Your task to perform on an android device: delete location history Image 0: 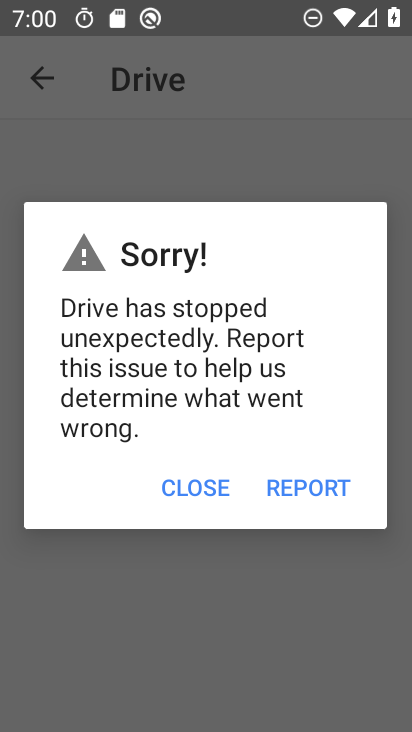
Step 0: press home button
Your task to perform on an android device: delete location history Image 1: 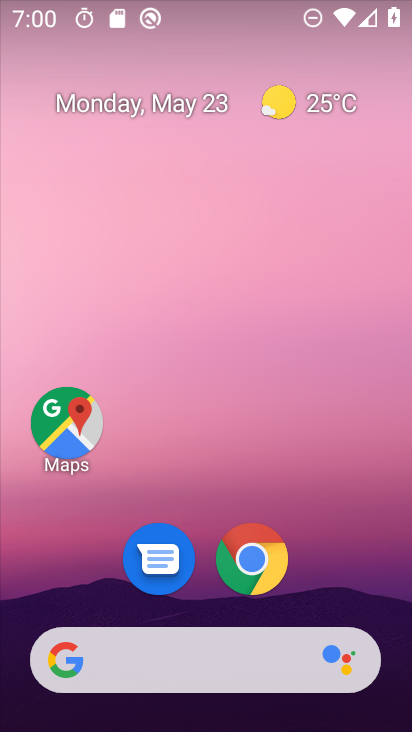
Step 1: drag from (398, 623) to (246, 79)
Your task to perform on an android device: delete location history Image 2: 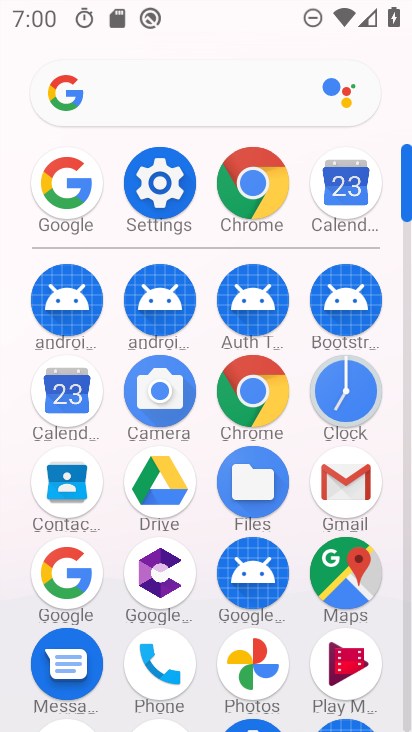
Step 2: click (144, 209)
Your task to perform on an android device: delete location history Image 3: 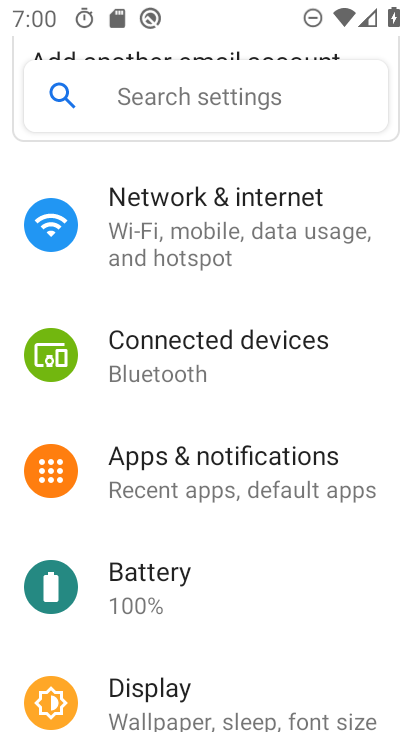
Step 3: drag from (96, 707) to (207, 281)
Your task to perform on an android device: delete location history Image 4: 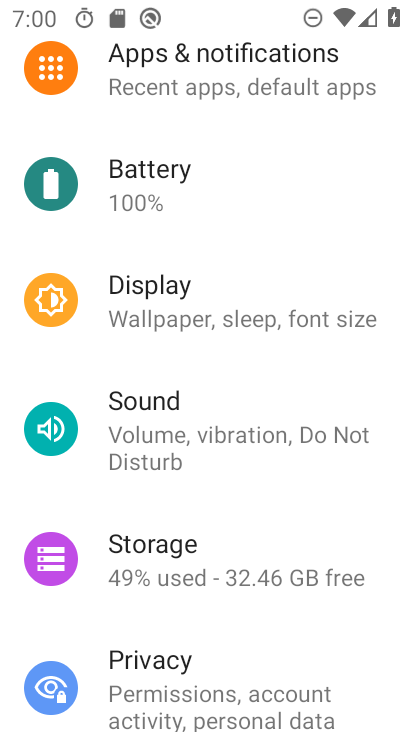
Step 4: drag from (143, 542) to (190, 212)
Your task to perform on an android device: delete location history Image 5: 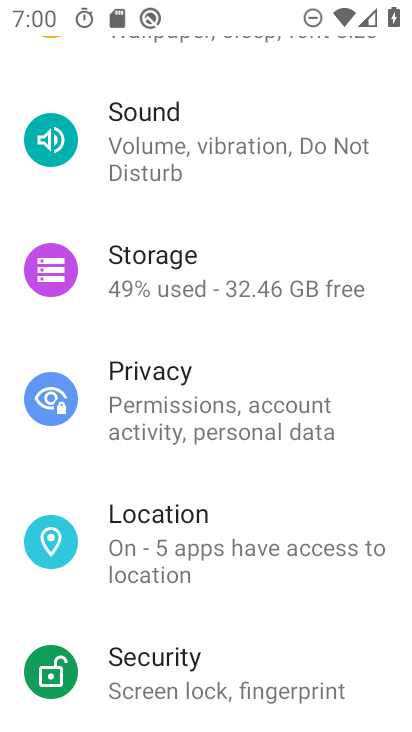
Step 5: click (199, 517)
Your task to perform on an android device: delete location history Image 6: 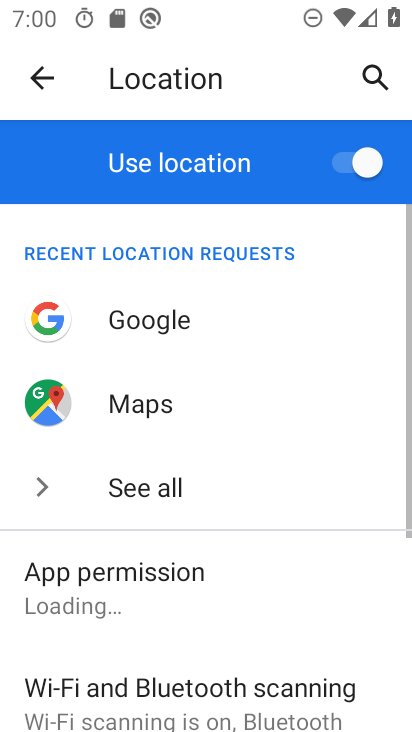
Step 6: drag from (170, 613) to (212, 301)
Your task to perform on an android device: delete location history Image 7: 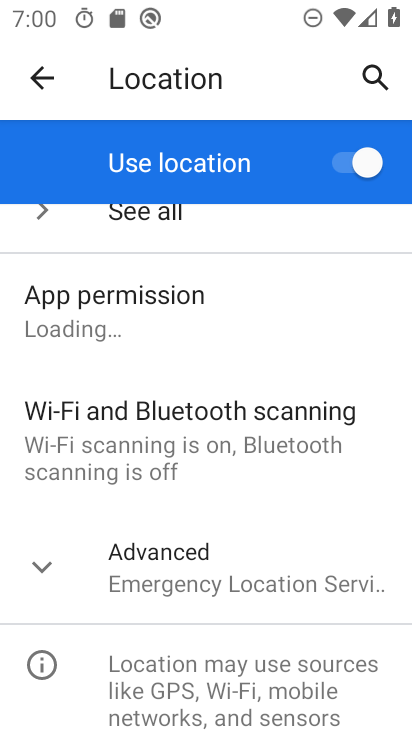
Step 7: click (271, 556)
Your task to perform on an android device: delete location history Image 8: 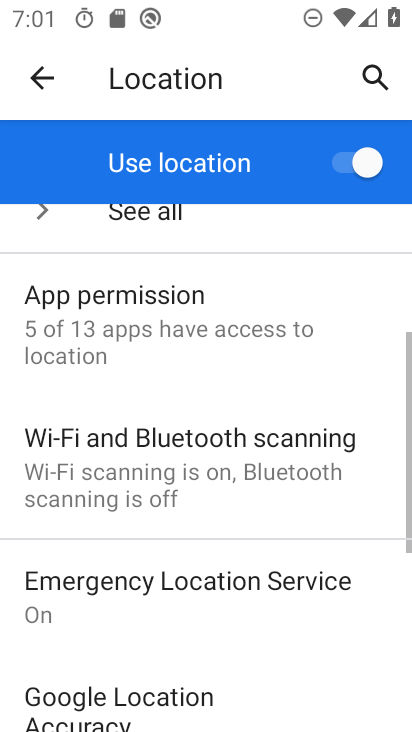
Step 8: drag from (158, 683) to (223, 379)
Your task to perform on an android device: delete location history Image 9: 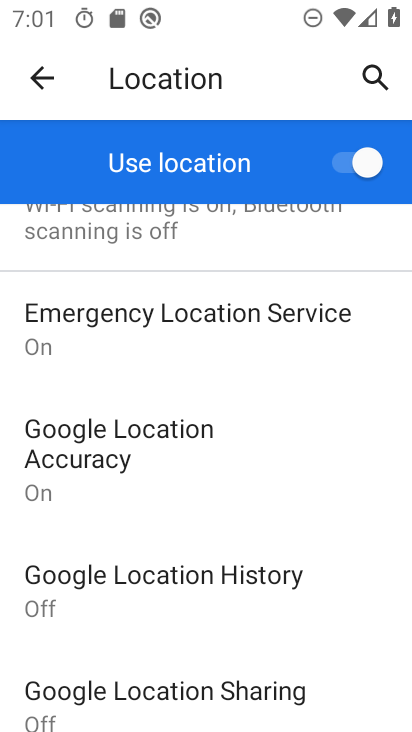
Step 9: click (187, 612)
Your task to perform on an android device: delete location history Image 10: 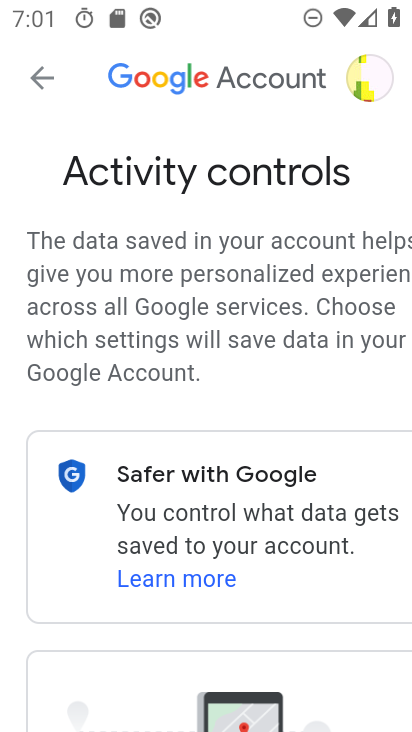
Step 10: drag from (187, 612) to (224, 201)
Your task to perform on an android device: delete location history Image 11: 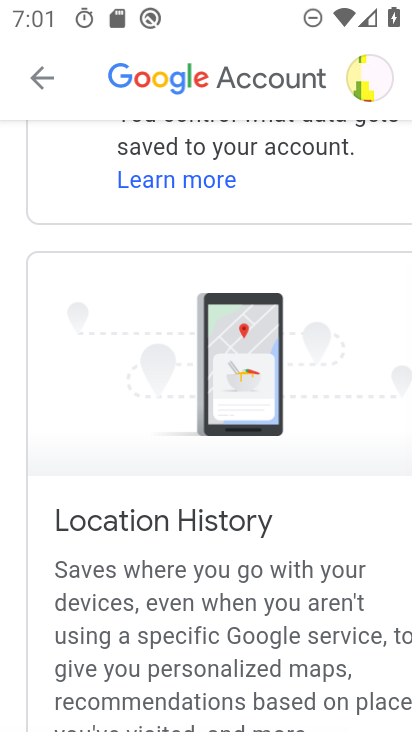
Step 11: drag from (256, 685) to (251, 163)
Your task to perform on an android device: delete location history Image 12: 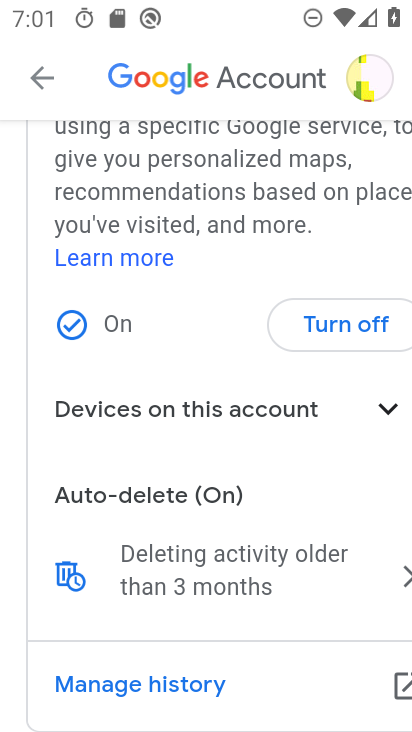
Step 12: click (216, 581)
Your task to perform on an android device: delete location history Image 13: 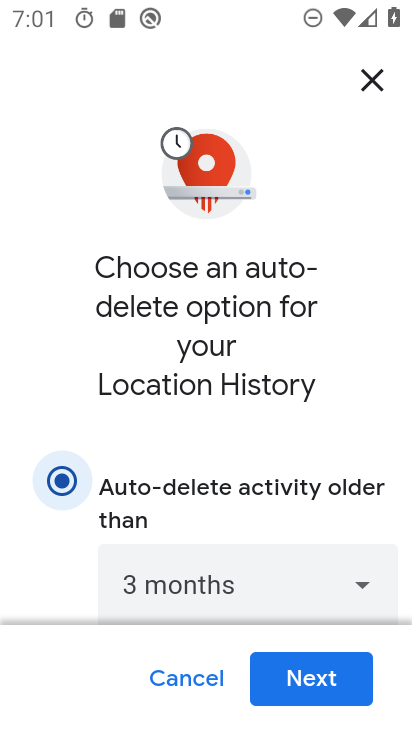
Step 13: click (276, 688)
Your task to perform on an android device: delete location history Image 14: 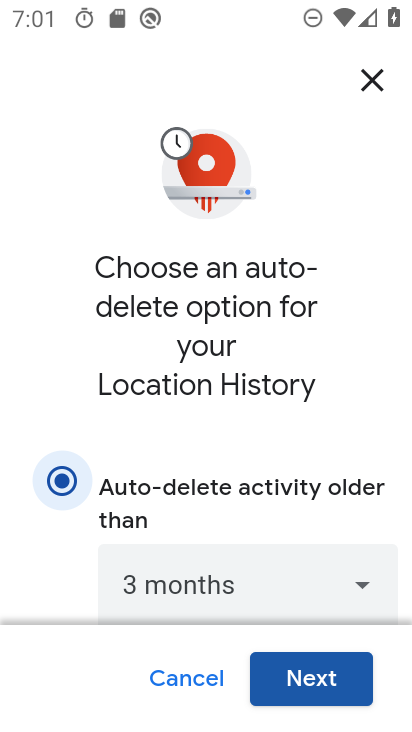
Step 14: click (312, 682)
Your task to perform on an android device: delete location history Image 15: 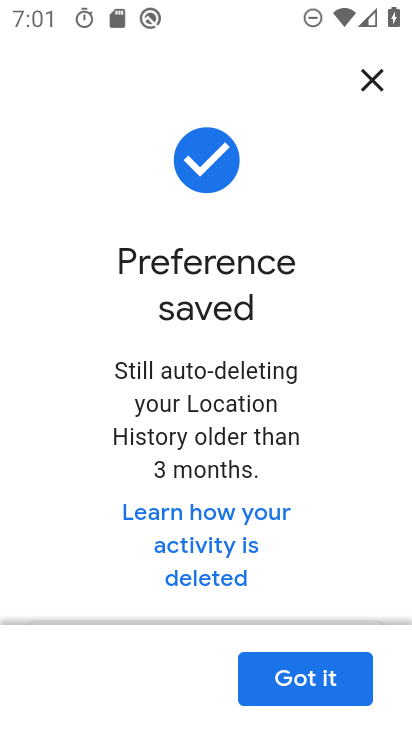
Step 15: click (312, 684)
Your task to perform on an android device: delete location history Image 16: 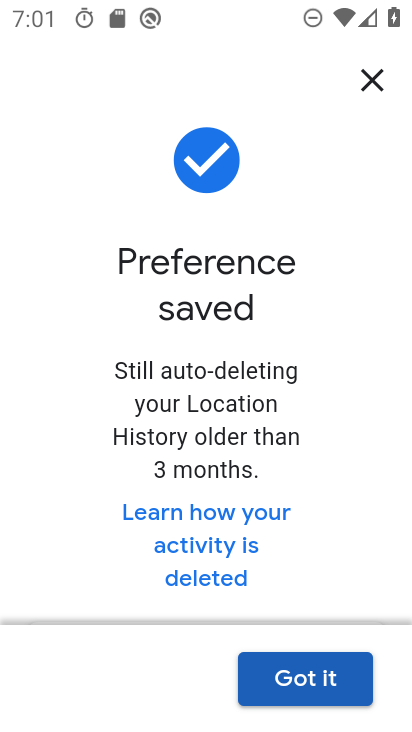
Step 16: click (262, 685)
Your task to perform on an android device: delete location history Image 17: 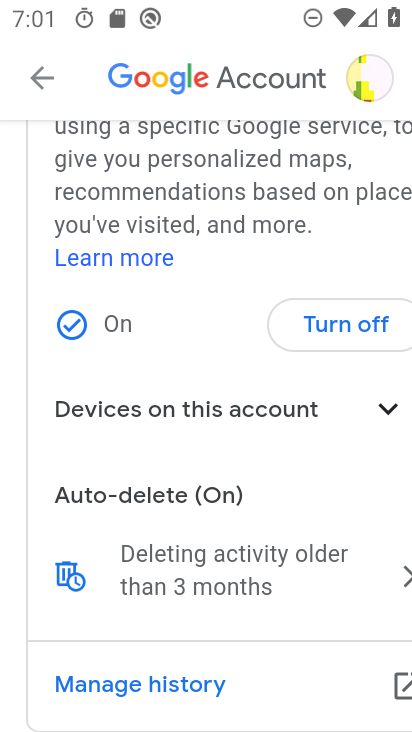
Step 17: task complete